Your task to perform on an android device: Open maps Image 0: 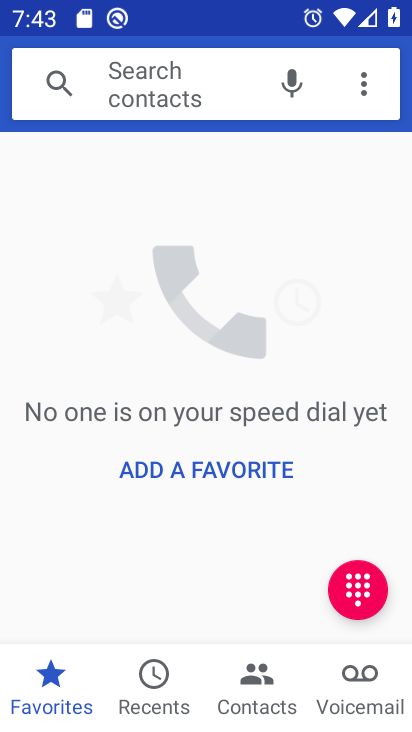
Step 0: press home button
Your task to perform on an android device: Open maps Image 1: 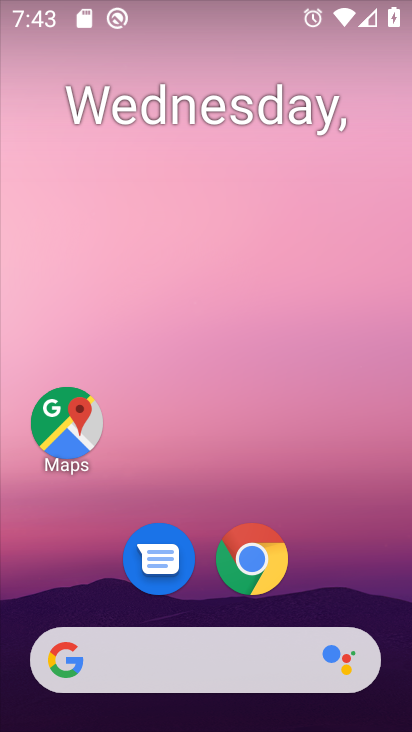
Step 1: drag from (368, 594) to (389, 148)
Your task to perform on an android device: Open maps Image 2: 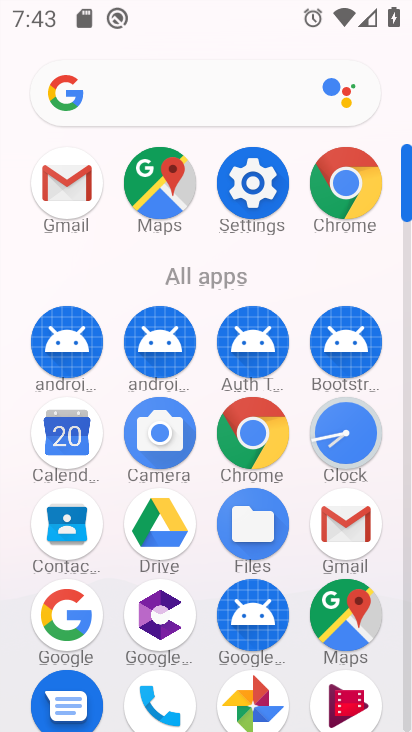
Step 2: click (349, 612)
Your task to perform on an android device: Open maps Image 3: 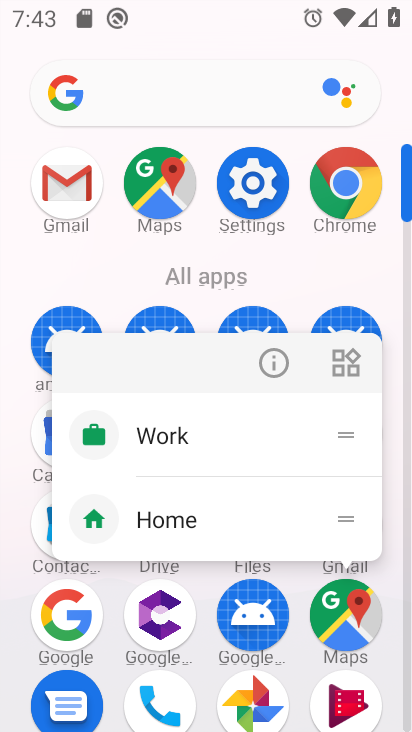
Step 3: click (338, 608)
Your task to perform on an android device: Open maps Image 4: 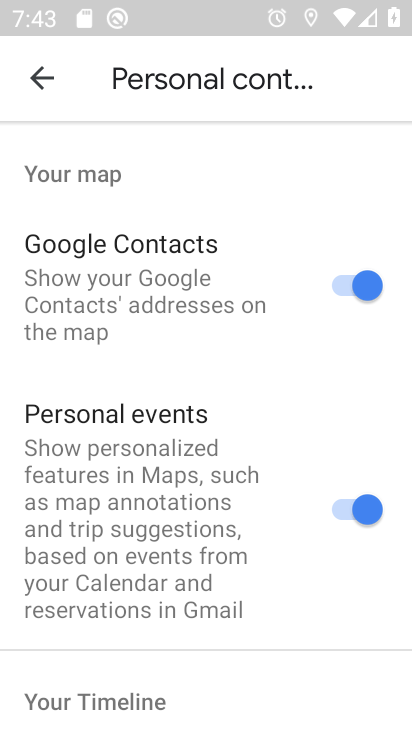
Step 4: click (31, 89)
Your task to perform on an android device: Open maps Image 5: 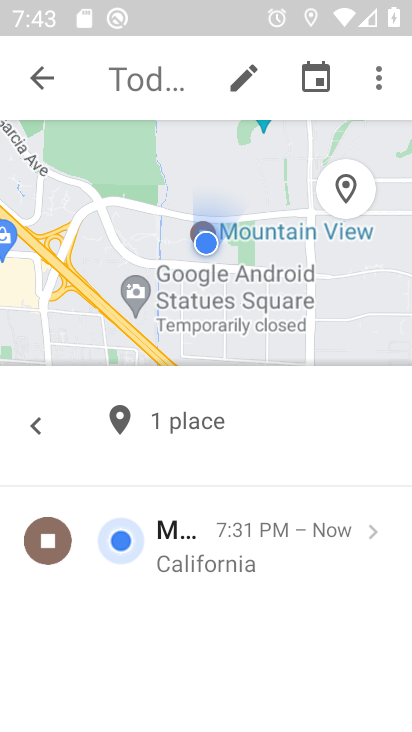
Step 5: click (32, 87)
Your task to perform on an android device: Open maps Image 6: 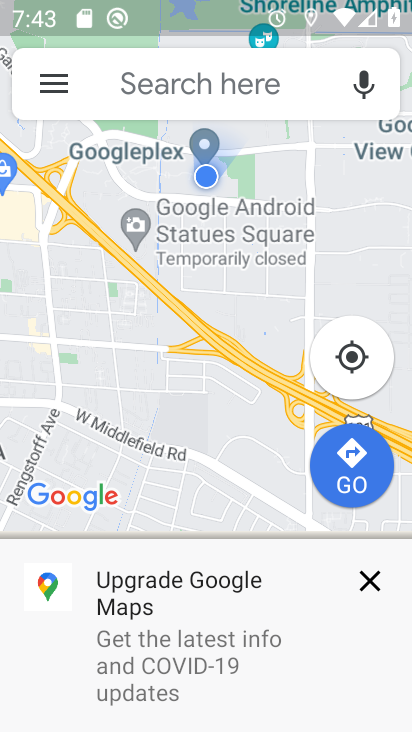
Step 6: click (372, 588)
Your task to perform on an android device: Open maps Image 7: 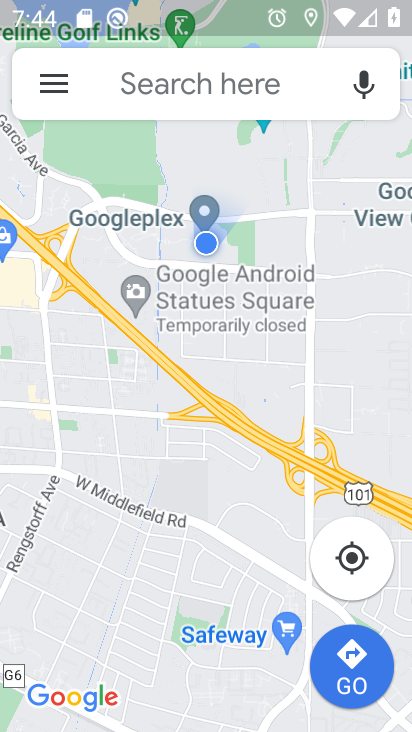
Step 7: task complete